Your task to perform on an android device: Open CNN.com Image 0: 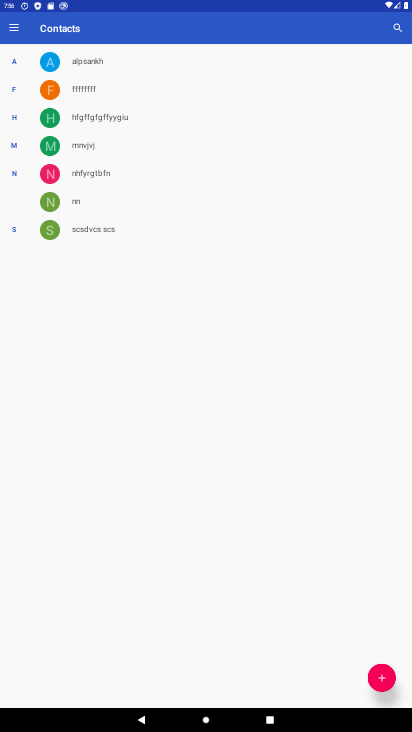
Step 0: press home button
Your task to perform on an android device: Open CNN.com Image 1: 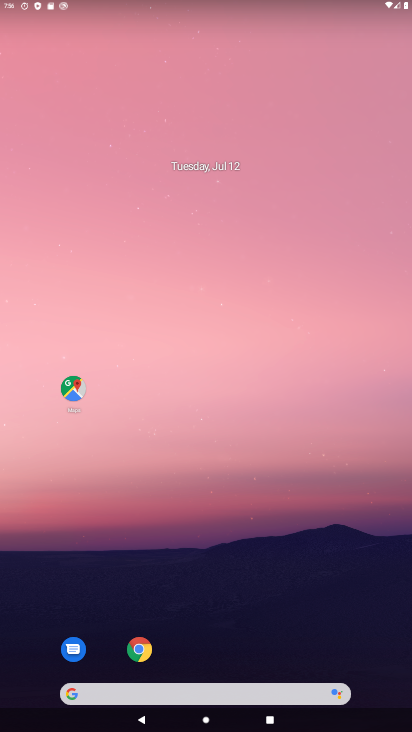
Step 1: drag from (335, 642) to (260, 123)
Your task to perform on an android device: Open CNN.com Image 2: 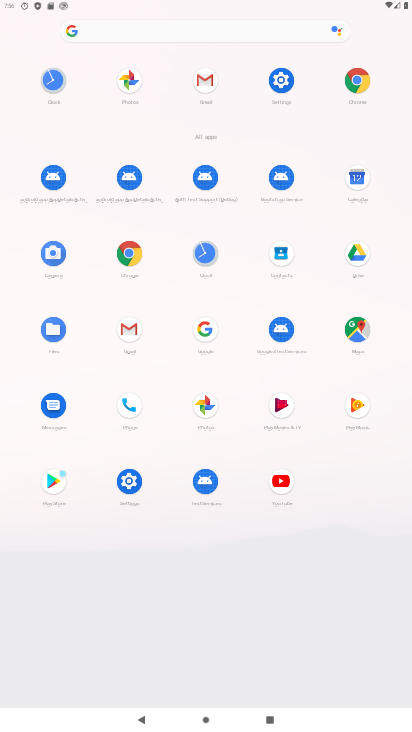
Step 2: click (362, 76)
Your task to perform on an android device: Open CNN.com Image 3: 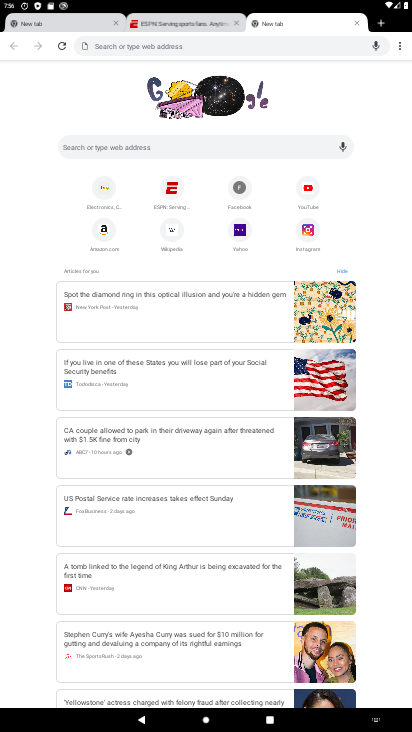
Step 3: type "cnn.com"
Your task to perform on an android device: Open CNN.com Image 4: 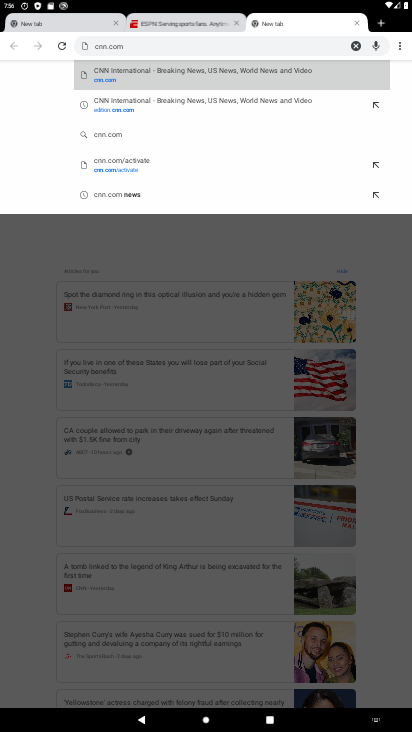
Step 4: click (105, 72)
Your task to perform on an android device: Open CNN.com Image 5: 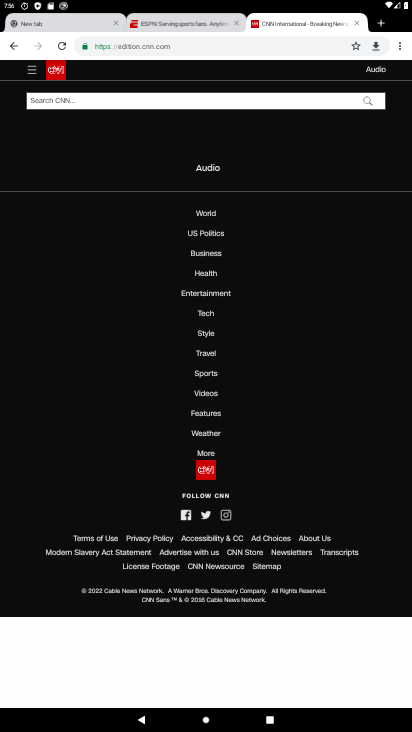
Step 5: task complete